Your task to perform on an android device: find snoozed emails in the gmail app Image 0: 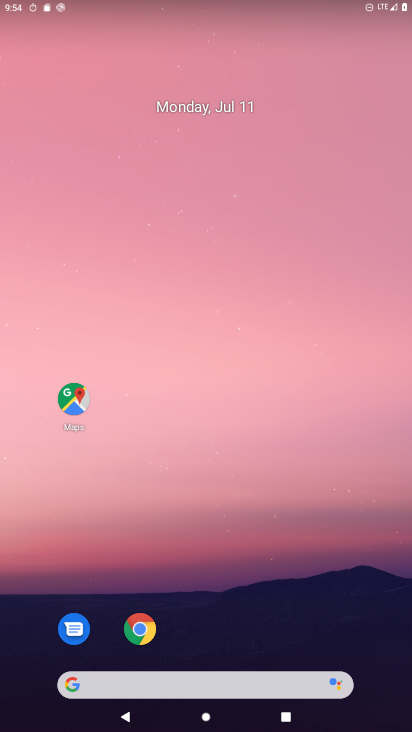
Step 0: drag from (193, 628) to (219, 153)
Your task to perform on an android device: find snoozed emails in the gmail app Image 1: 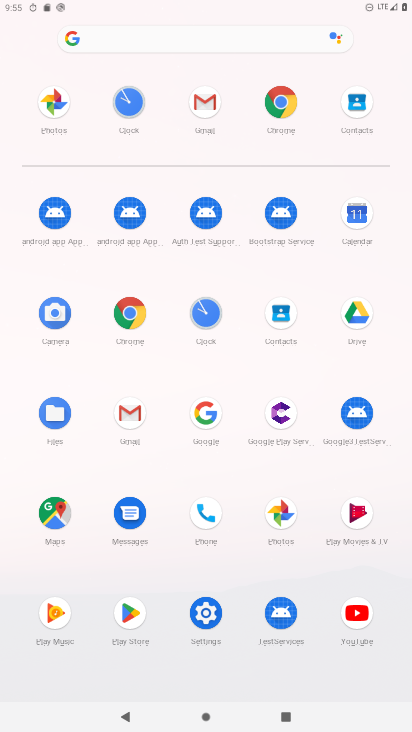
Step 1: click (212, 111)
Your task to perform on an android device: find snoozed emails in the gmail app Image 2: 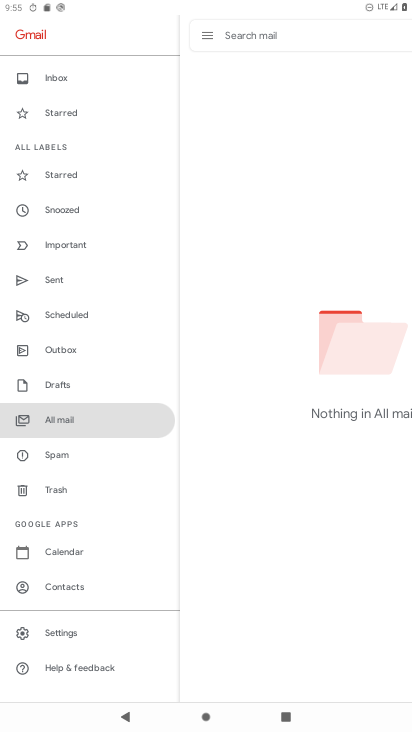
Step 2: click (62, 212)
Your task to perform on an android device: find snoozed emails in the gmail app Image 3: 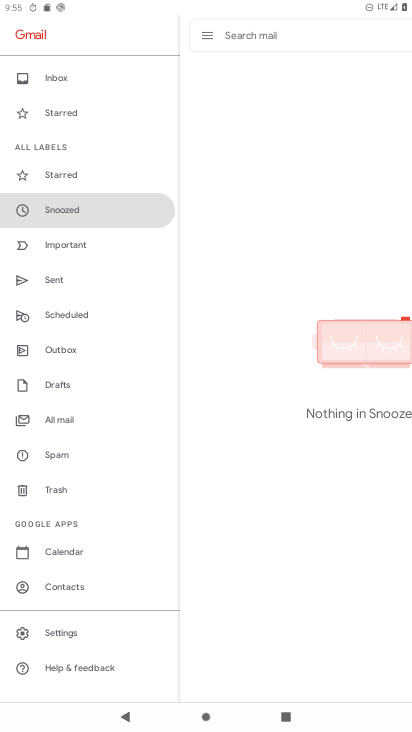
Step 3: task complete